Your task to perform on an android device: Open Amazon Image 0: 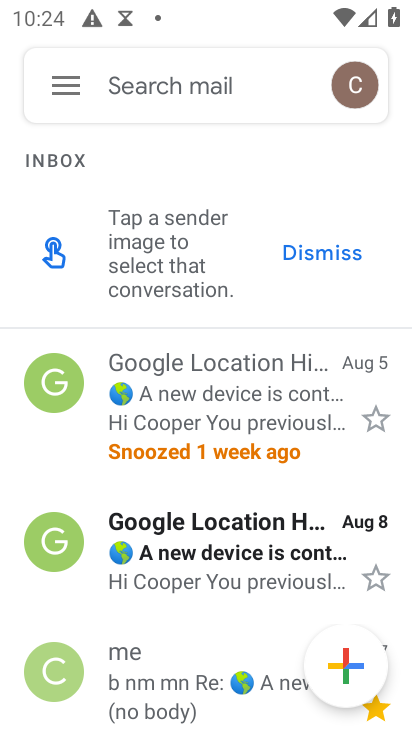
Step 0: press home button
Your task to perform on an android device: Open Amazon Image 1: 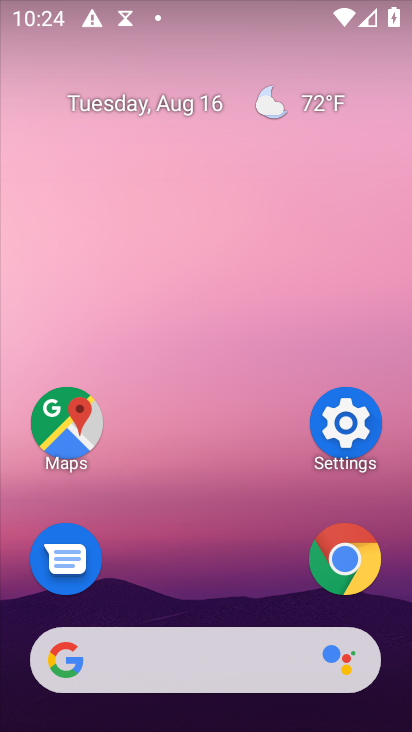
Step 1: click (341, 560)
Your task to perform on an android device: Open Amazon Image 2: 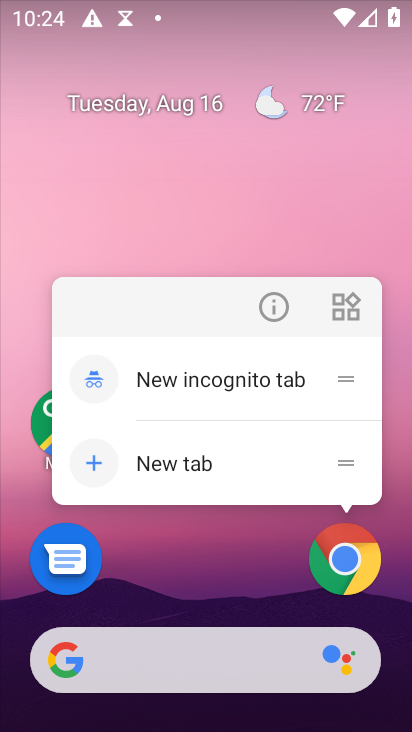
Step 2: click (341, 559)
Your task to perform on an android device: Open Amazon Image 3: 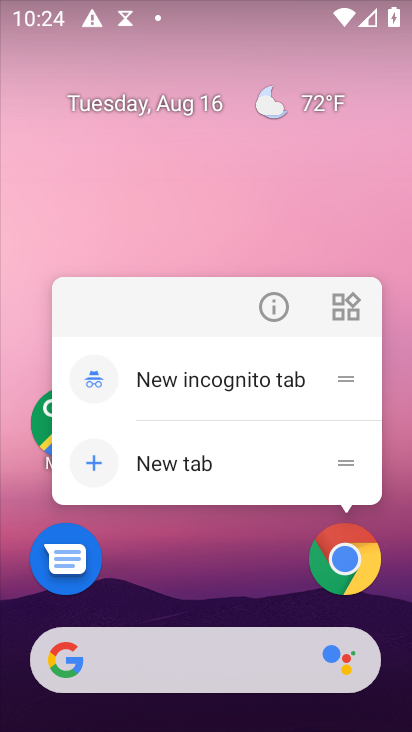
Step 3: click (341, 560)
Your task to perform on an android device: Open Amazon Image 4: 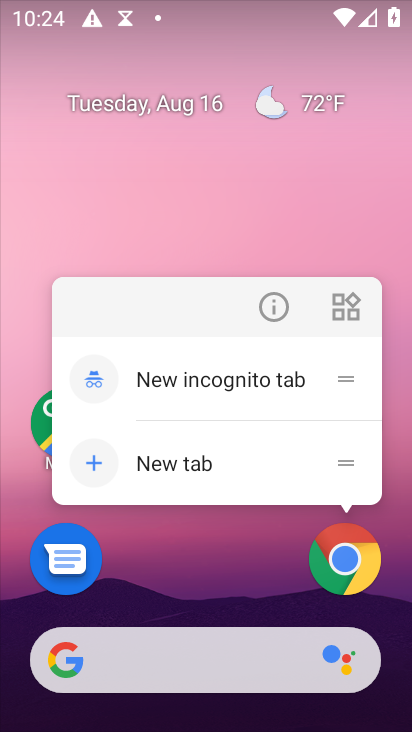
Step 4: click (350, 556)
Your task to perform on an android device: Open Amazon Image 5: 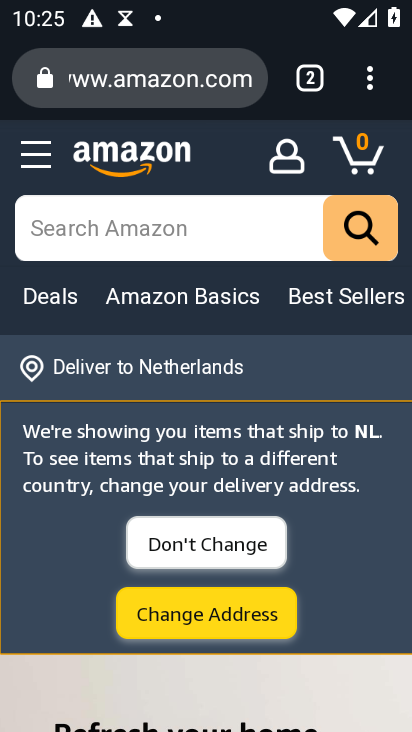
Step 5: task complete